Your task to perform on an android device: toggle priority inbox in the gmail app Image 0: 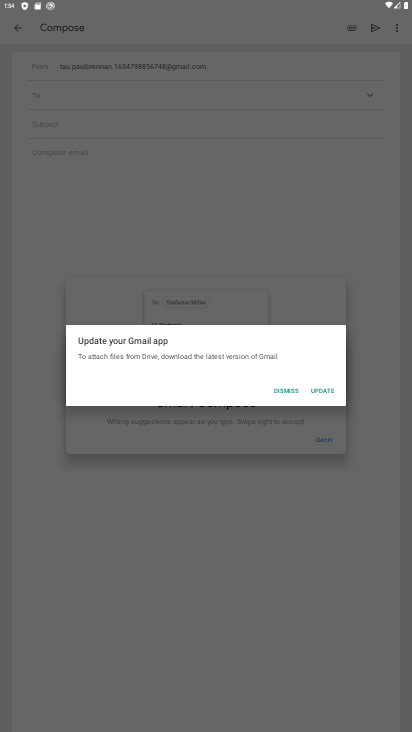
Step 0: press home button
Your task to perform on an android device: toggle priority inbox in the gmail app Image 1: 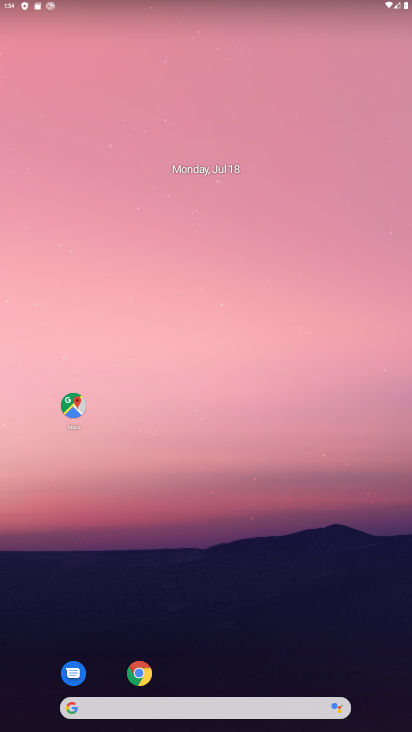
Step 1: drag from (194, 672) to (288, 101)
Your task to perform on an android device: toggle priority inbox in the gmail app Image 2: 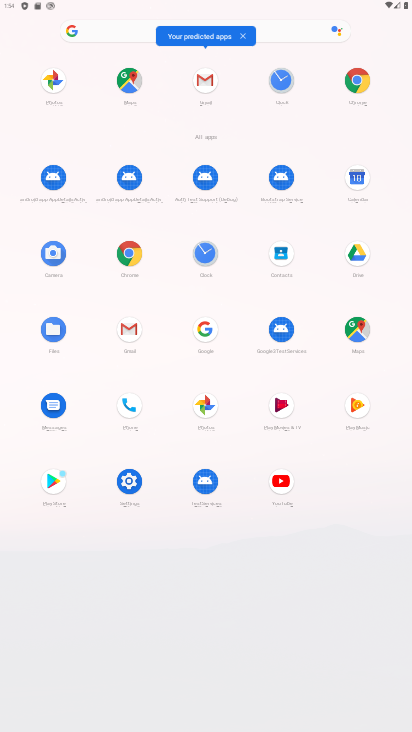
Step 2: click (116, 337)
Your task to perform on an android device: toggle priority inbox in the gmail app Image 3: 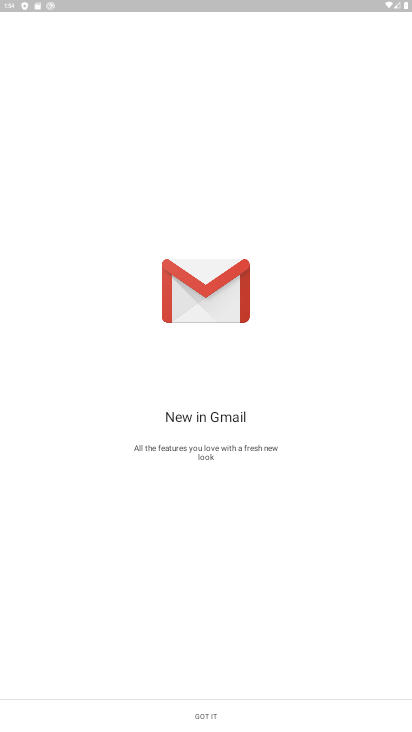
Step 3: click (188, 708)
Your task to perform on an android device: toggle priority inbox in the gmail app Image 4: 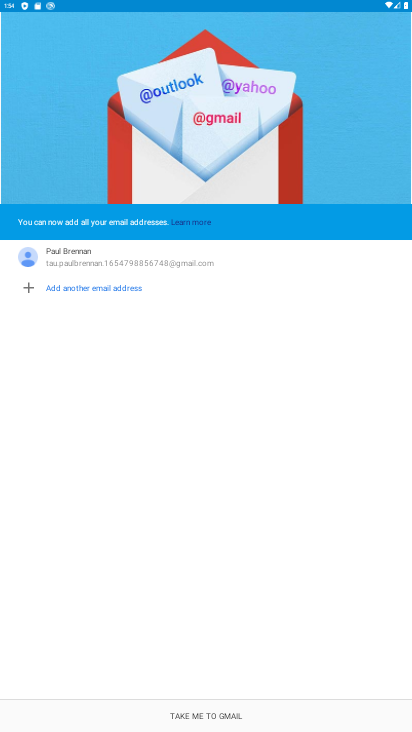
Step 4: click (230, 721)
Your task to perform on an android device: toggle priority inbox in the gmail app Image 5: 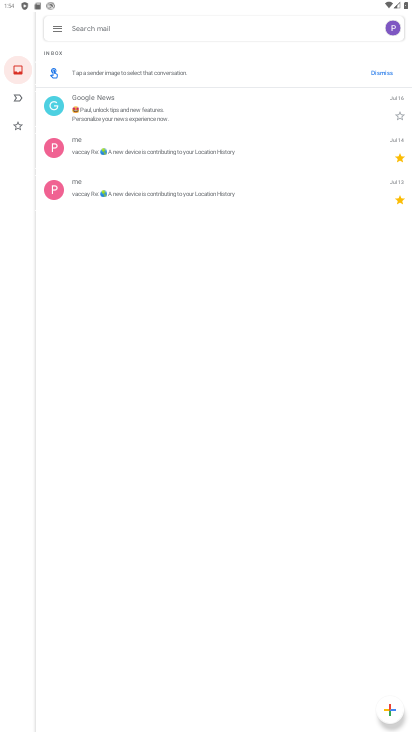
Step 5: click (52, 23)
Your task to perform on an android device: toggle priority inbox in the gmail app Image 6: 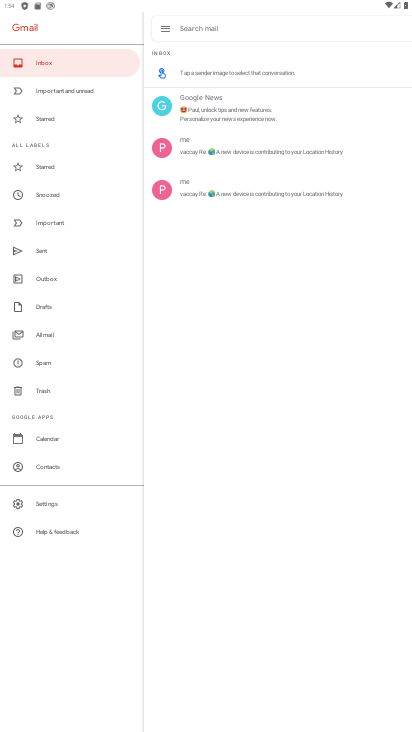
Step 6: click (64, 498)
Your task to perform on an android device: toggle priority inbox in the gmail app Image 7: 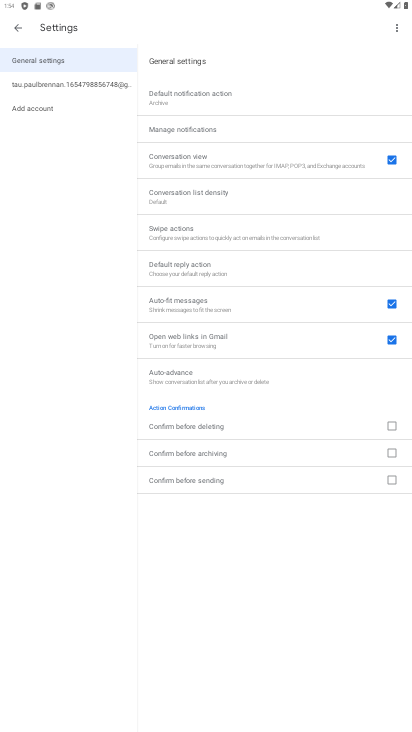
Step 7: click (78, 90)
Your task to perform on an android device: toggle priority inbox in the gmail app Image 8: 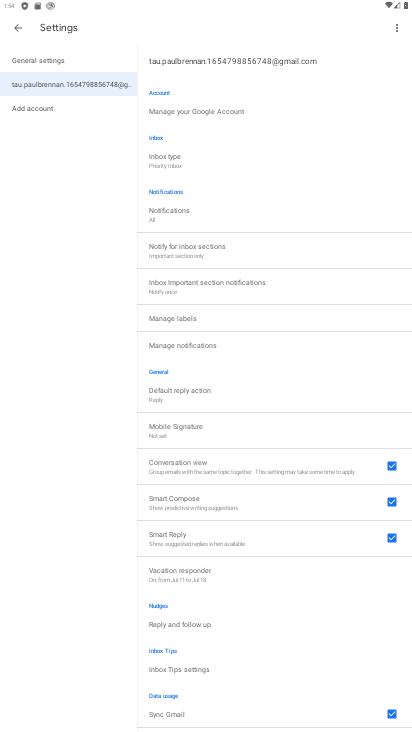
Step 8: click (203, 163)
Your task to perform on an android device: toggle priority inbox in the gmail app Image 9: 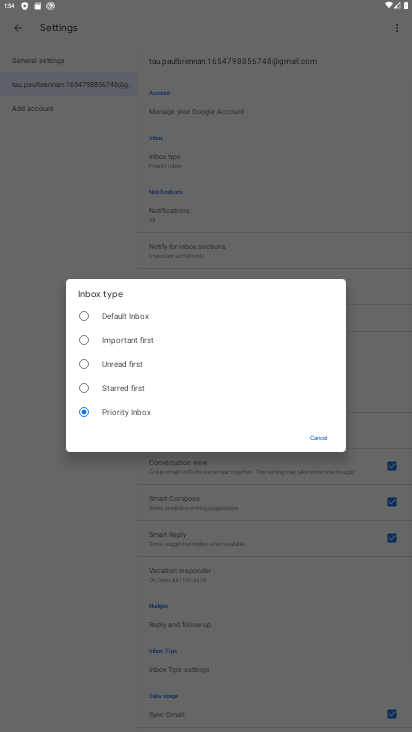
Step 9: click (160, 317)
Your task to perform on an android device: toggle priority inbox in the gmail app Image 10: 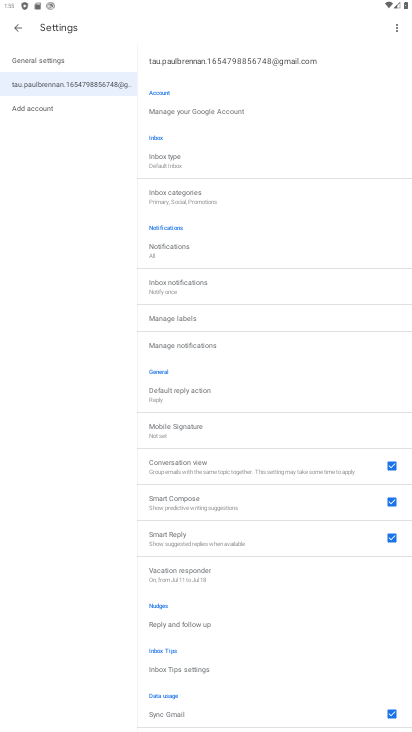
Step 10: task complete